Your task to perform on an android device: turn on javascript in the chrome app Image 0: 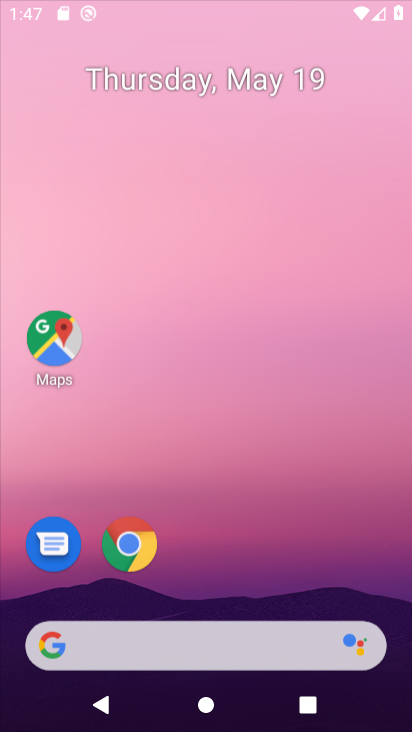
Step 0: press home button
Your task to perform on an android device: turn on javascript in the chrome app Image 1: 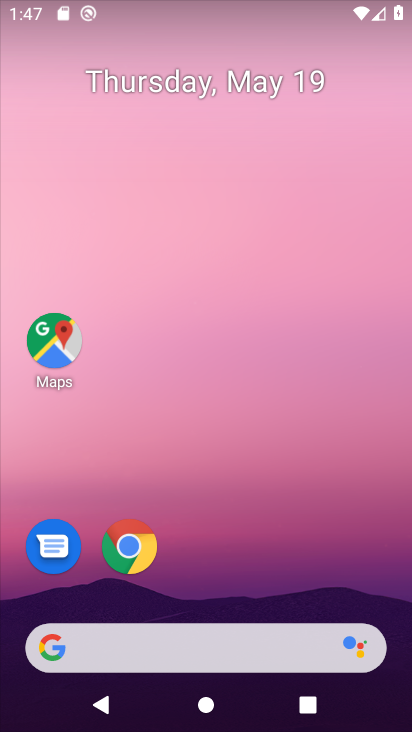
Step 1: click (135, 542)
Your task to perform on an android device: turn on javascript in the chrome app Image 2: 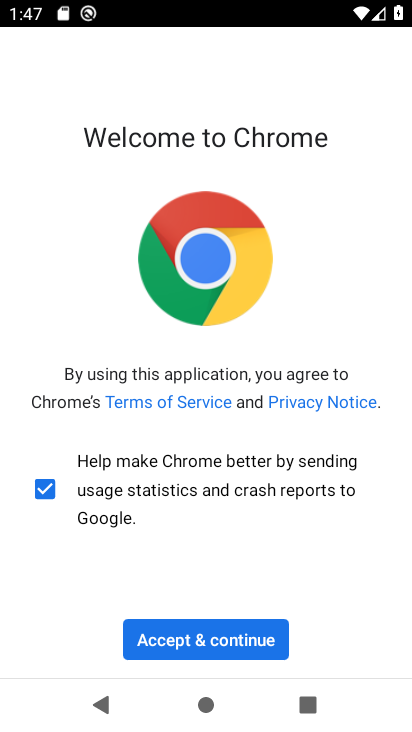
Step 2: click (202, 634)
Your task to perform on an android device: turn on javascript in the chrome app Image 3: 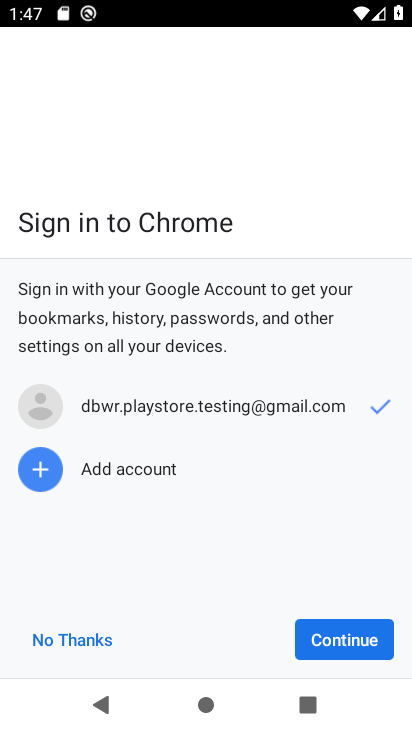
Step 3: click (353, 634)
Your task to perform on an android device: turn on javascript in the chrome app Image 4: 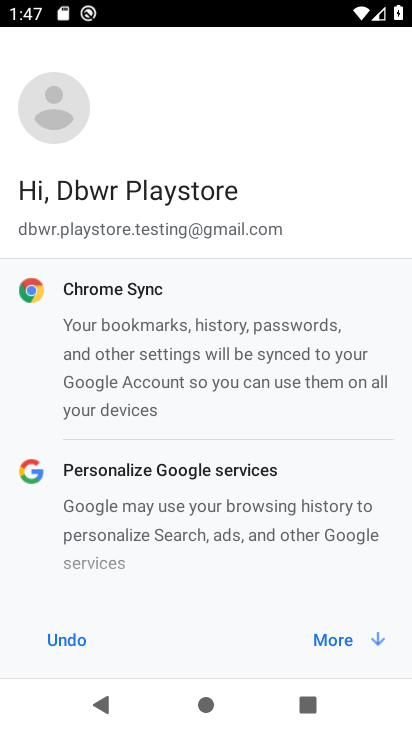
Step 4: click (353, 634)
Your task to perform on an android device: turn on javascript in the chrome app Image 5: 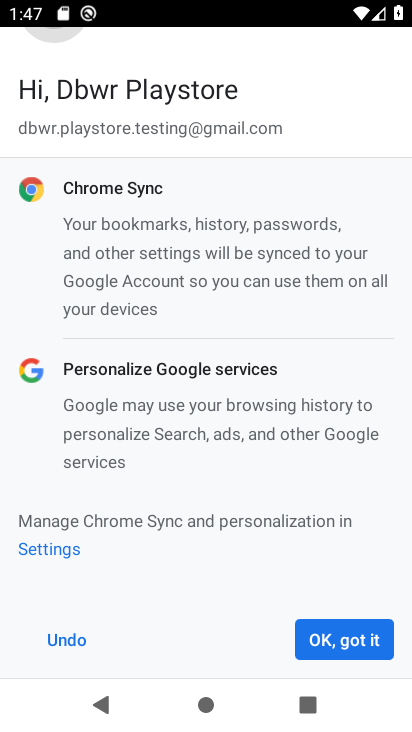
Step 5: click (353, 634)
Your task to perform on an android device: turn on javascript in the chrome app Image 6: 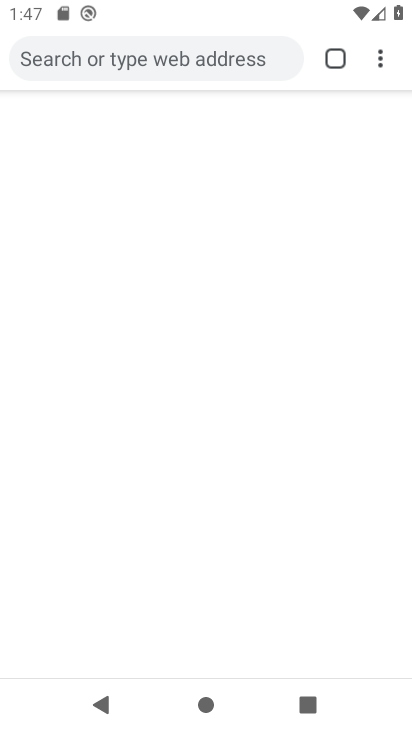
Step 6: click (353, 634)
Your task to perform on an android device: turn on javascript in the chrome app Image 7: 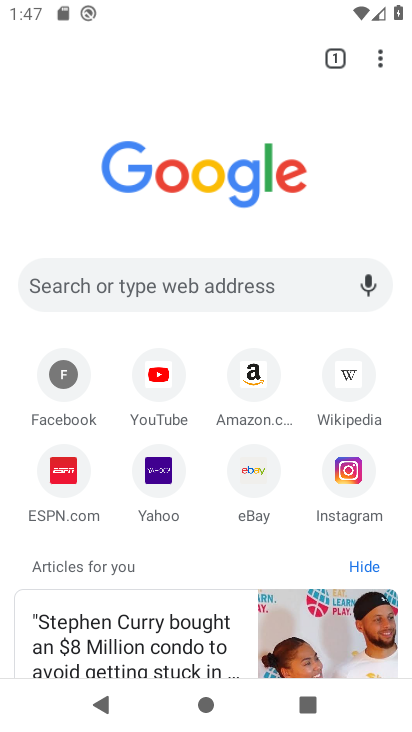
Step 7: click (381, 54)
Your task to perform on an android device: turn on javascript in the chrome app Image 8: 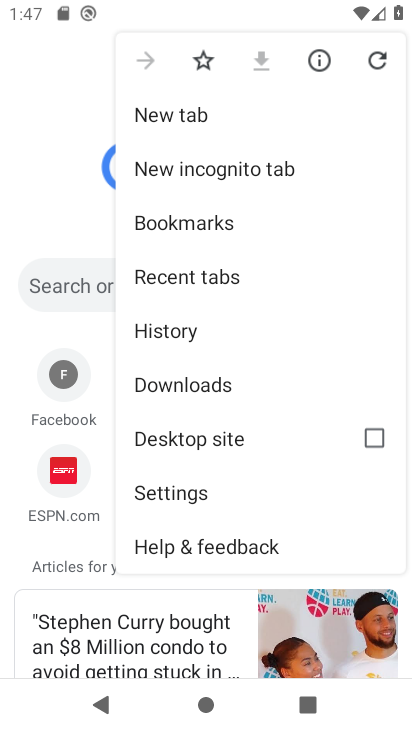
Step 8: click (213, 492)
Your task to perform on an android device: turn on javascript in the chrome app Image 9: 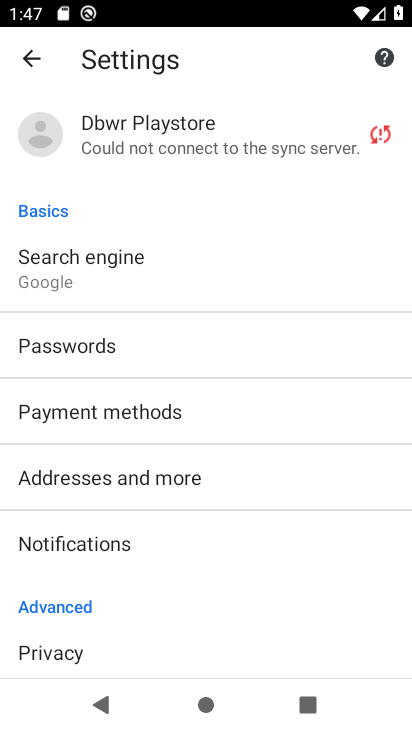
Step 9: drag from (153, 611) to (206, 74)
Your task to perform on an android device: turn on javascript in the chrome app Image 10: 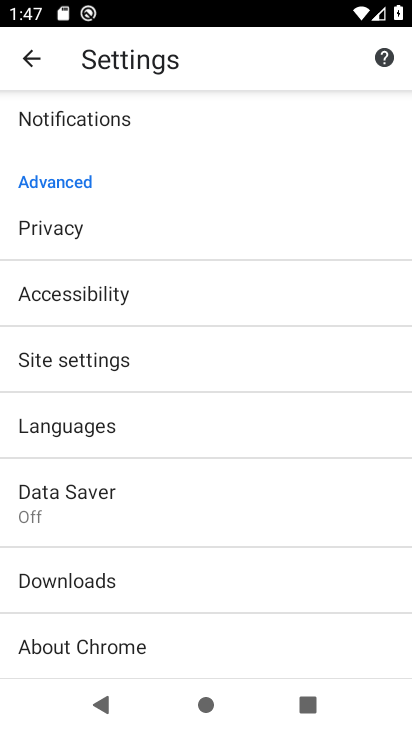
Step 10: click (147, 354)
Your task to perform on an android device: turn on javascript in the chrome app Image 11: 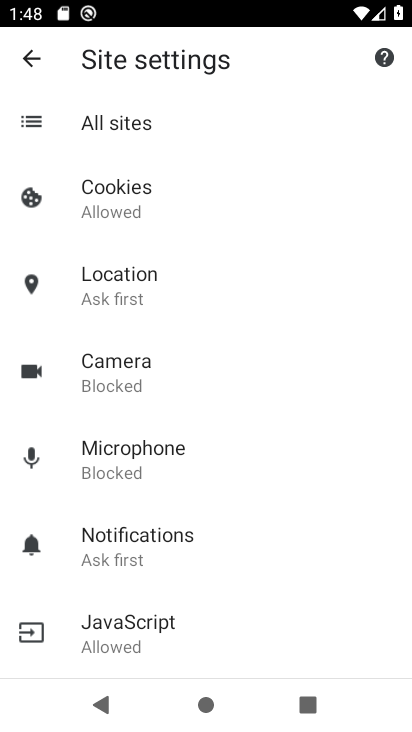
Step 11: click (177, 635)
Your task to perform on an android device: turn on javascript in the chrome app Image 12: 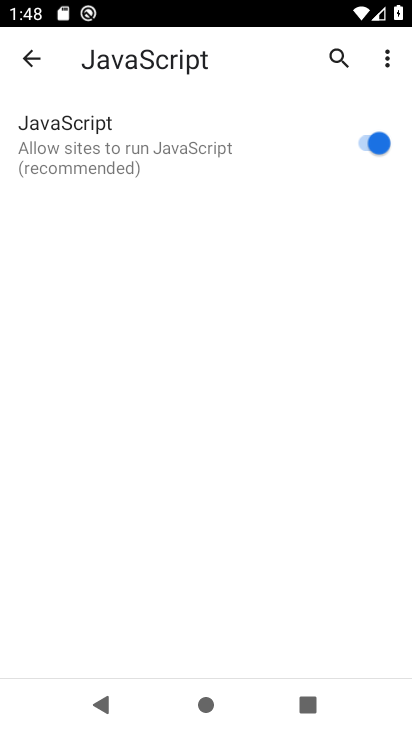
Step 12: task complete